Your task to perform on an android device: check the backup settings in the google photos Image 0: 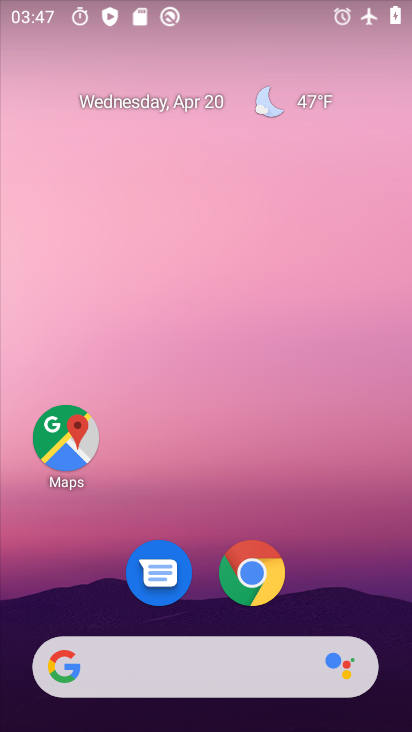
Step 0: drag from (205, 718) to (189, 202)
Your task to perform on an android device: check the backup settings in the google photos Image 1: 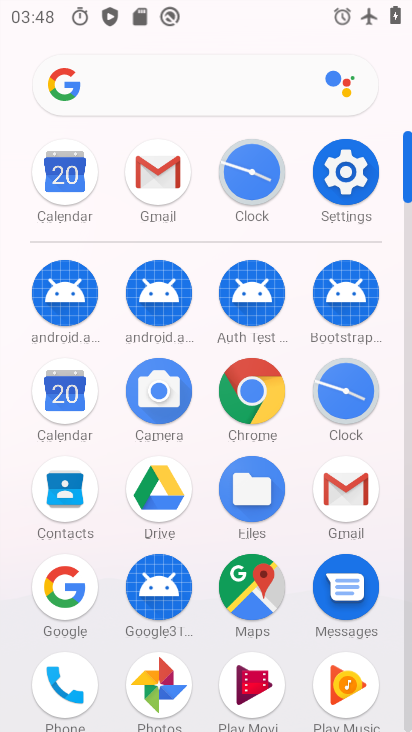
Step 1: click (157, 677)
Your task to perform on an android device: check the backup settings in the google photos Image 2: 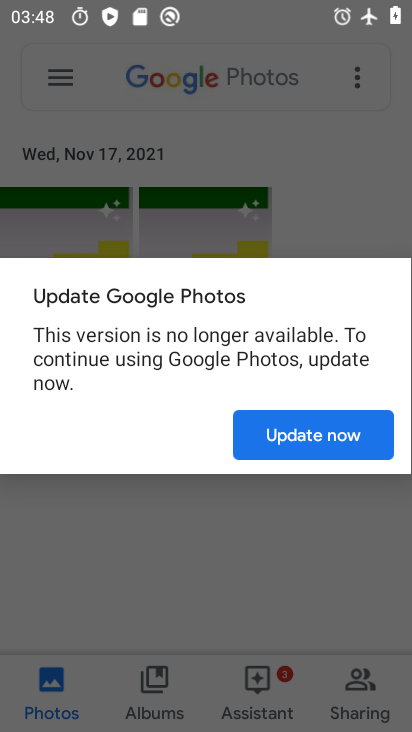
Step 2: click (322, 430)
Your task to perform on an android device: check the backup settings in the google photos Image 3: 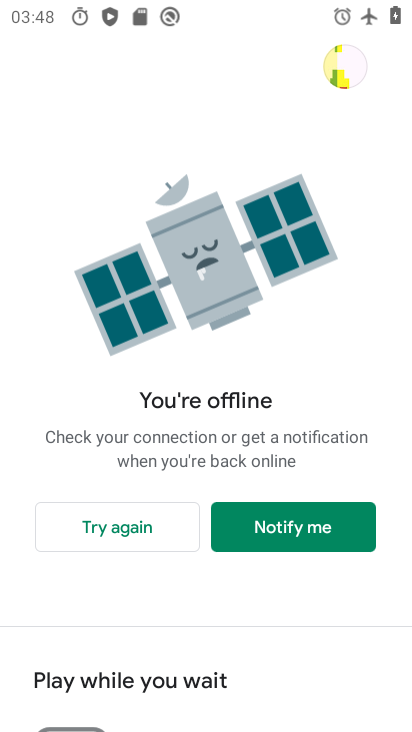
Step 3: task complete